Your task to perform on an android device: Search for Mexican restaurants on Maps Image 0: 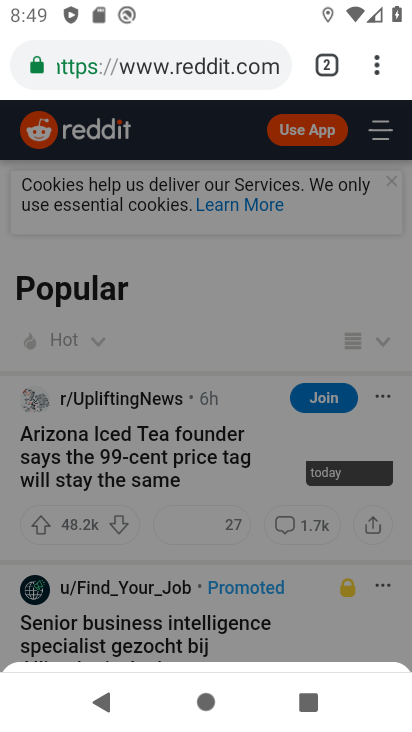
Step 0: press home button
Your task to perform on an android device: Search for Mexican restaurants on Maps Image 1: 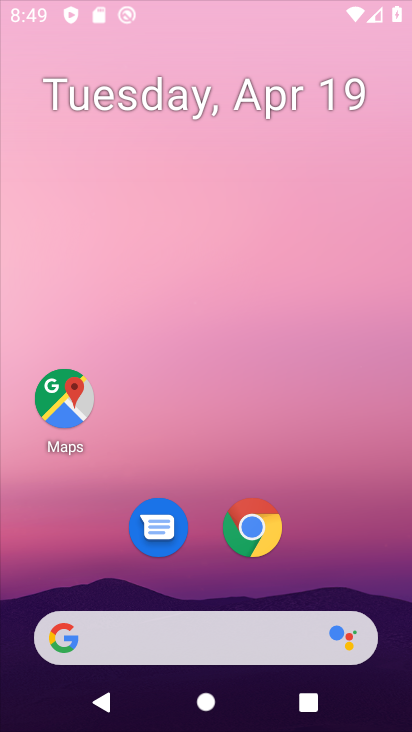
Step 1: press home button
Your task to perform on an android device: Search for Mexican restaurants on Maps Image 2: 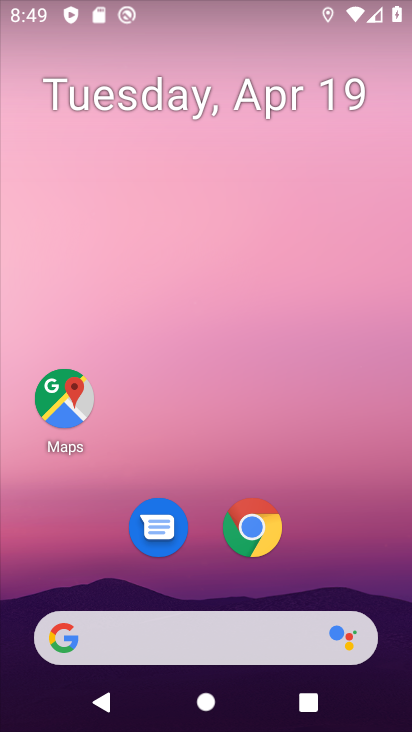
Step 2: click (309, 556)
Your task to perform on an android device: Search for Mexican restaurants on Maps Image 3: 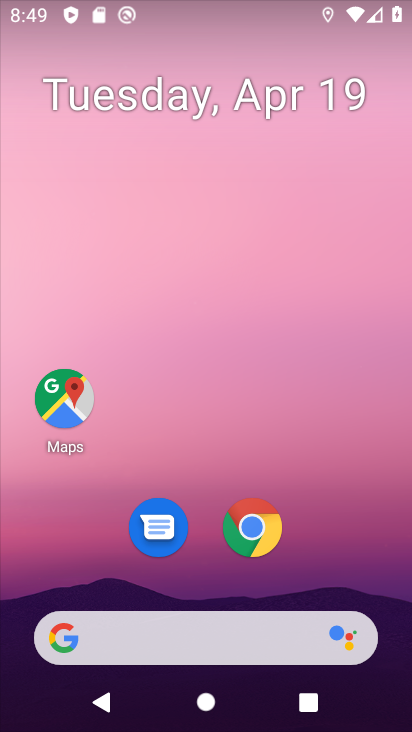
Step 3: drag from (313, 393) to (322, 310)
Your task to perform on an android device: Search for Mexican restaurants on Maps Image 4: 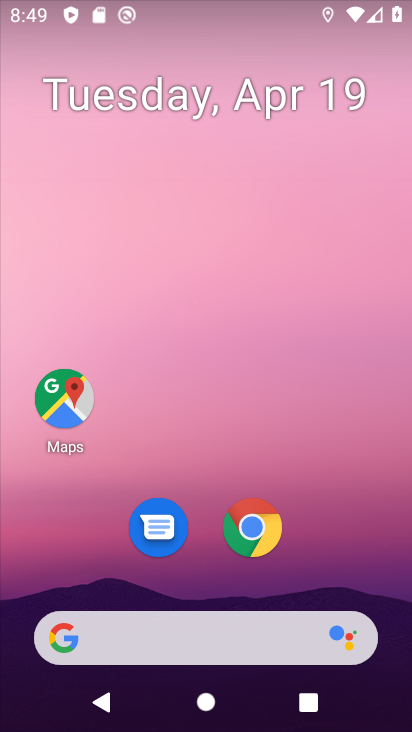
Step 4: drag from (287, 536) to (277, 62)
Your task to perform on an android device: Search for Mexican restaurants on Maps Image 5: 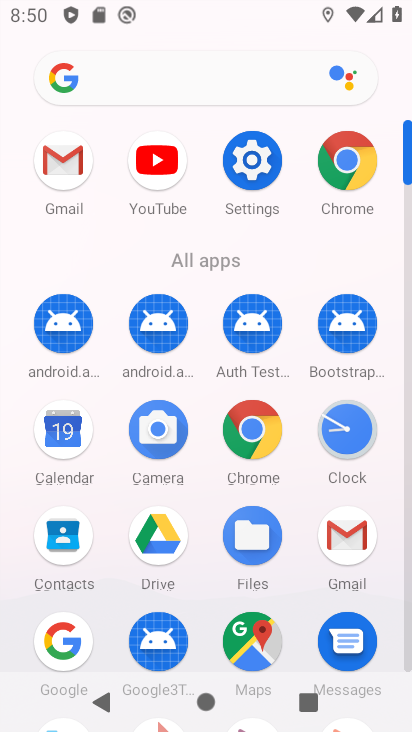
Step 5: click (252, 635)
Your task to perform on an android device: Search for Mexican restaurants on Maps Image 6: 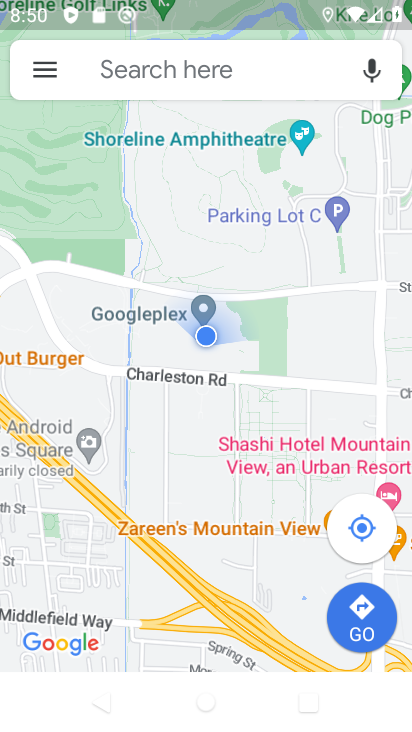
Step 6: click (249, 63)
Your task to perform on an android device: Search for Mexican restaurants on Maps Image 7: 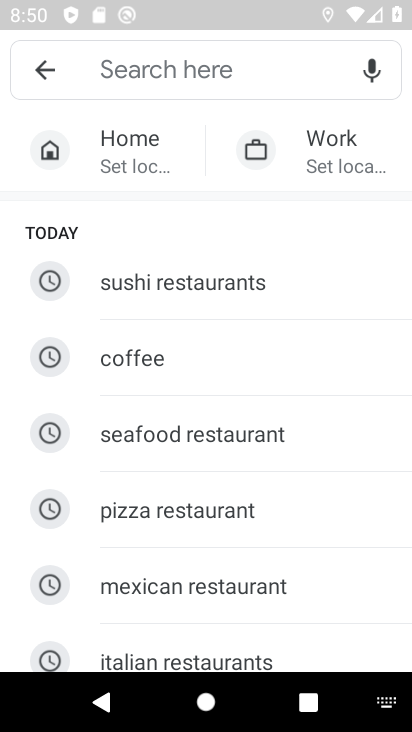
Step 7: type " Mexican restaurants "
Your task to perform on an android device: Search for Mexican restaurants on Maps Image 8: 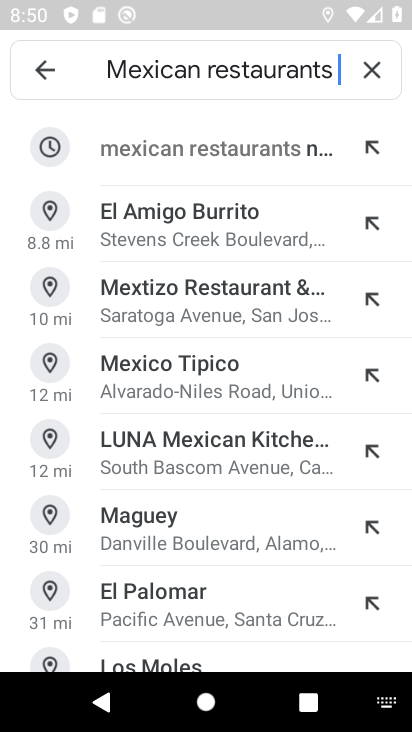
Step 8: click (203, 145)
Your task to perform on an android device: Search for Mexican restaurants on Maps Image 9: 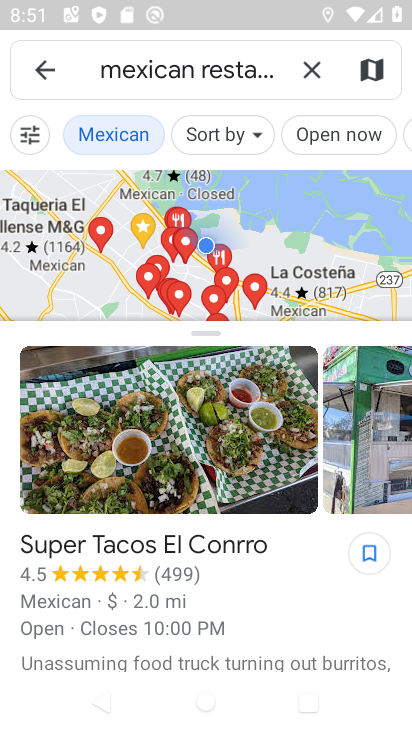
Step 9: task complete